Your task to perform on an android device: Open the web browser Image 0: 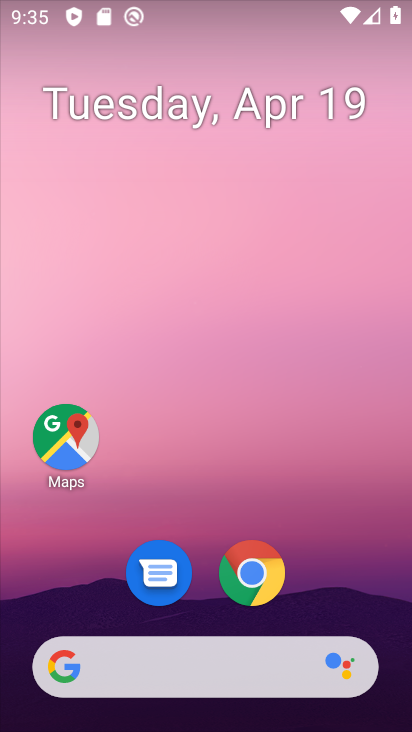
Step 0: click (263, 586)
Your task to perform on an android device: Open the web browser Image 1: 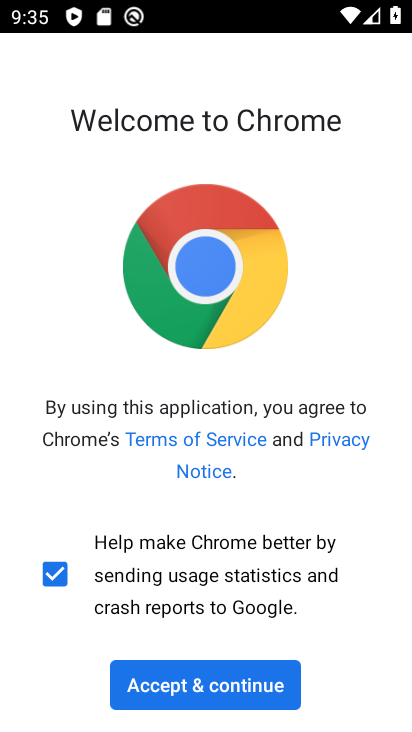
Step 1: click (187, 685)
Your task to perform on an android device: Open the web browser Image 2: 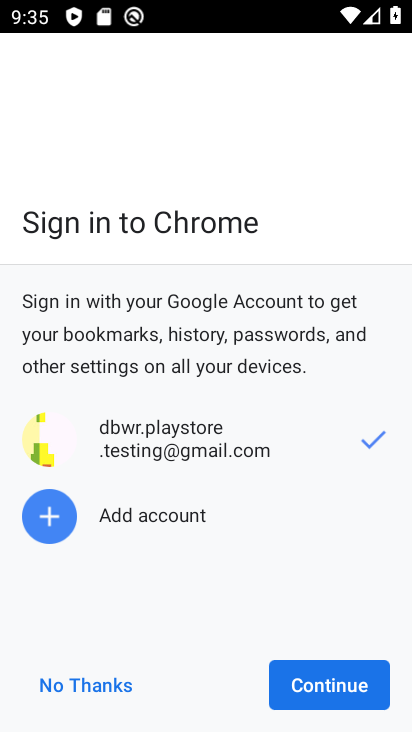
Step 2: click (319, 691)
Your task to perform on an android device: Open the web browser Image 3: 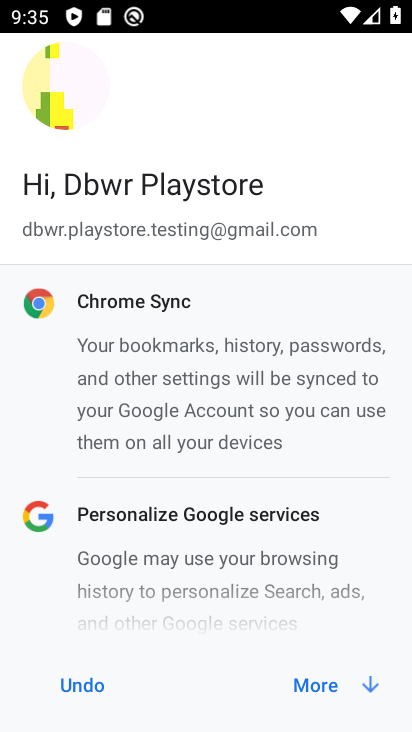
Step 3: click (317, 679)
Your task to perform on an android device: Open the web browser Image 4: 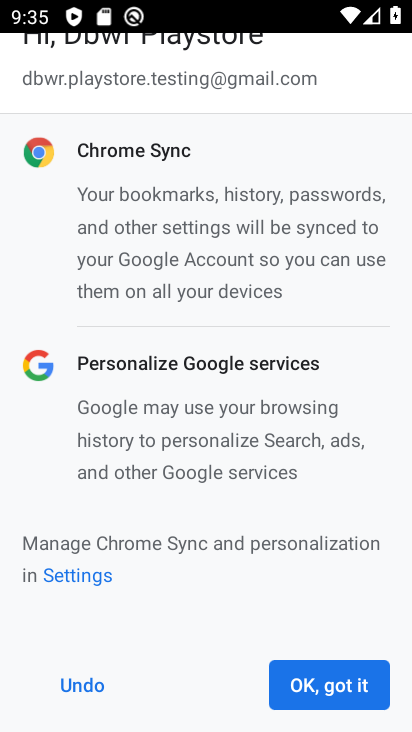
Step 4: click (300, 697)
Your task to perform on an android device: Open the web browser Image 5: 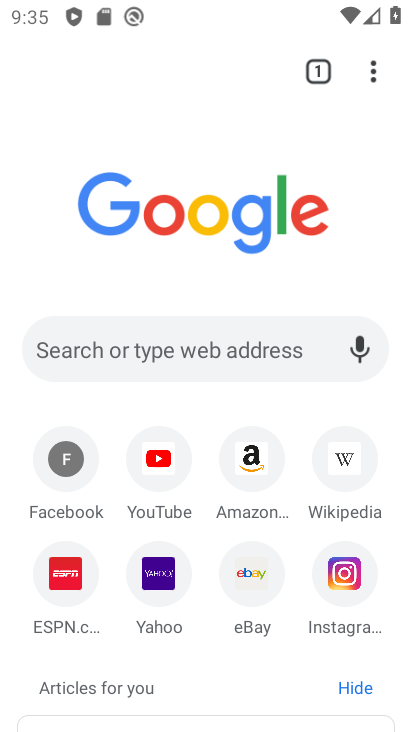
Step 5: task complete